Your task to perform on an android device: make emails show in primary in the gmail app Image 0: 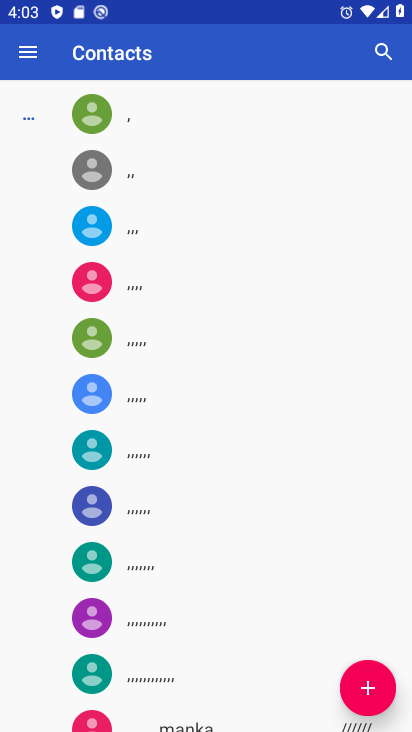
Step 0: press home button
Your task to perform on an android device: make emails show in primary in the gmail app Image 1: 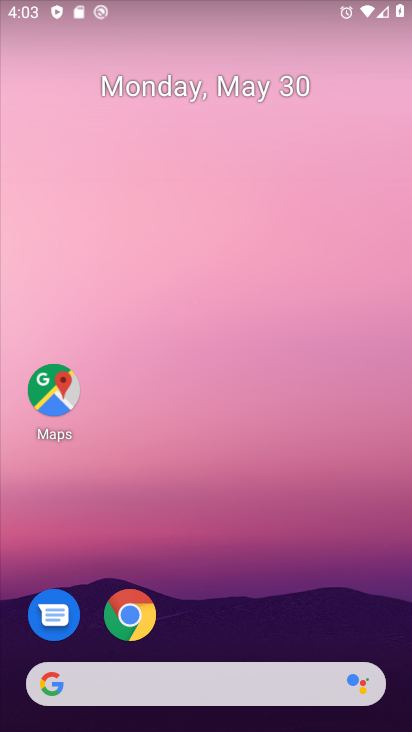
Step 1: drag from (219, 594) to (243, 54)
Your task to perform on an android device: make emails show in primary in the gmail app Image 2: 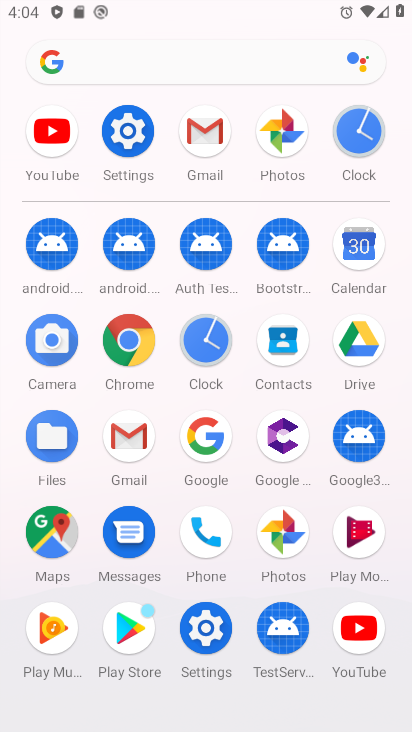
Step 2: click (205, 129)
Your task to perform on an android device: make emails show in primary in the gmail app Image 3: 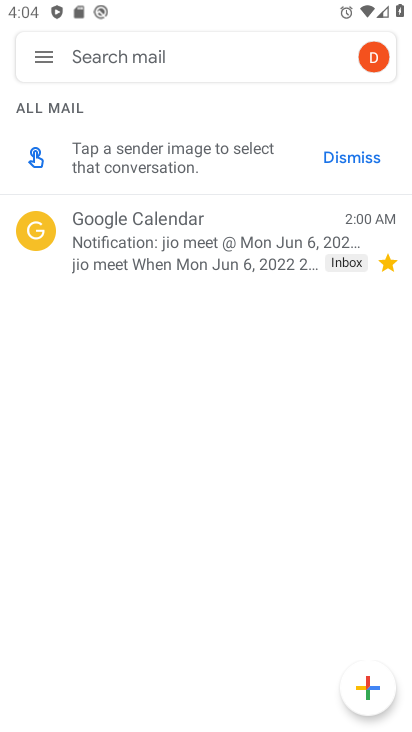
Step 3: click (46, 52)
Your task to perform on an android device: make emails show in primary in the gmail app Image 4: 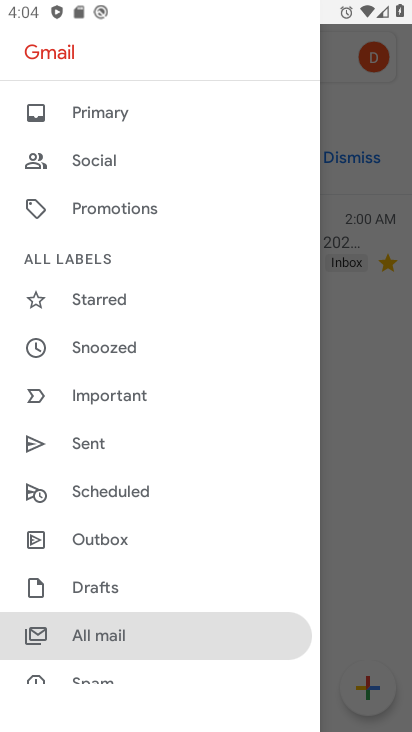
Step 4: drag from (134, 550) to (148, 358)
Your task to perform on an android device: make emails show in primary in the gmail app Image 5: 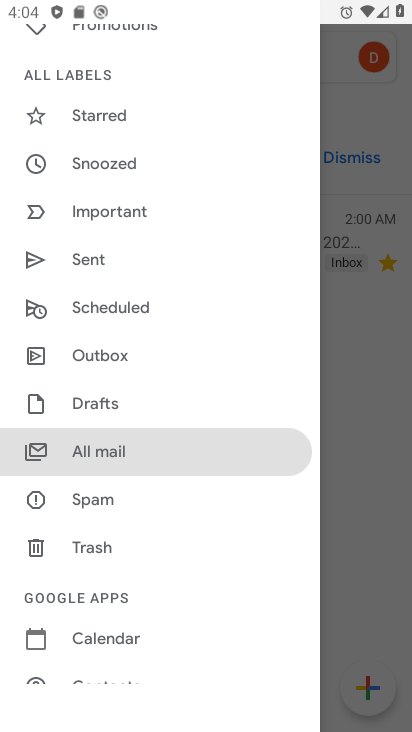
Step 5: drag from (165, 517) to (179, 314)
Your task to perform on an android device: make emails show in primary in the gmail app Image 6: 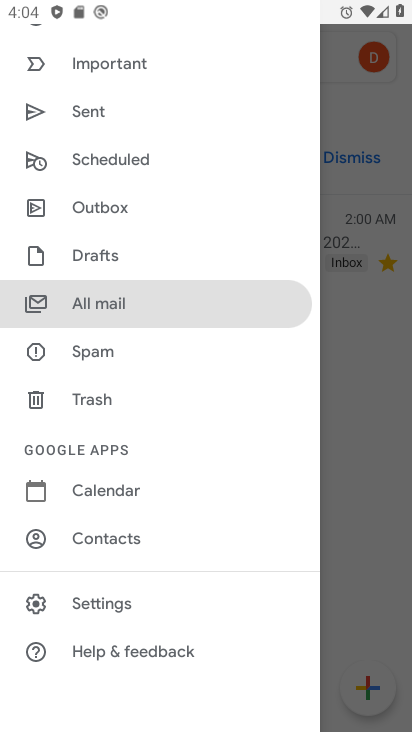
Step 6: click (138, 609)
Your task to perform on an android device: make emails show in primary in the gmail app Image 7: 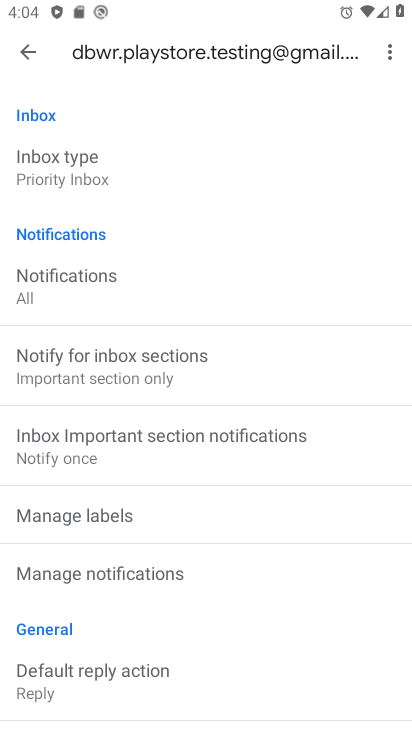
Step 7: click (78, 167)
Your task to perform on an android device: make emails show in primary in the gmail app Image 8: 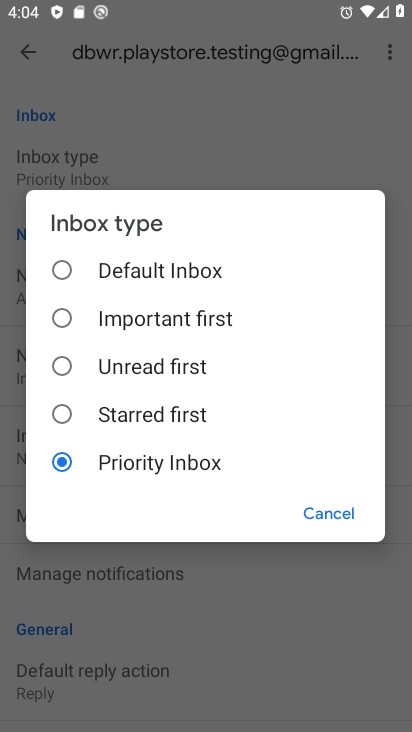
Step 8: click (70, 269)
Your task to perform on an android device: make emails show in primary in the gmail app Image 9: 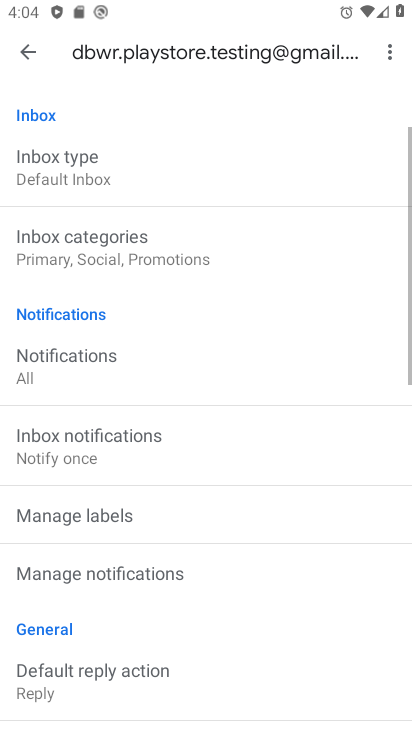
Step 9: click (87, 249)
Your task to perform on an android device: make emails show in primary in the gmail app Image 10: 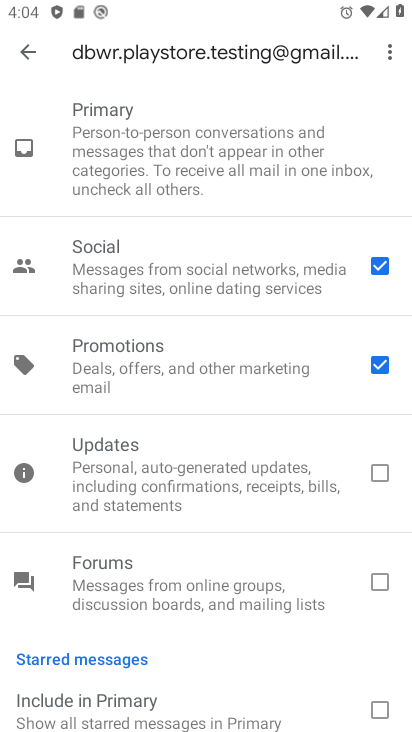
Step 10: click (373, 261)
Your task to perform on an android device: make emails show in primary in the gmail app Image 11: 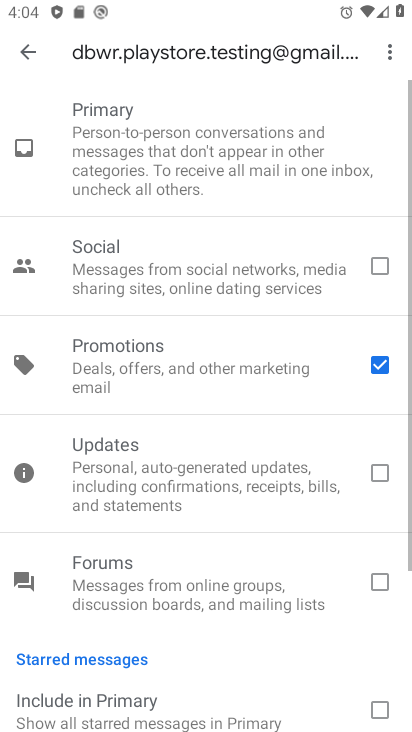
Step 11: click (381, 362)
Your task to perform on an android device: make emails show in primary in the gmail app Image 12: 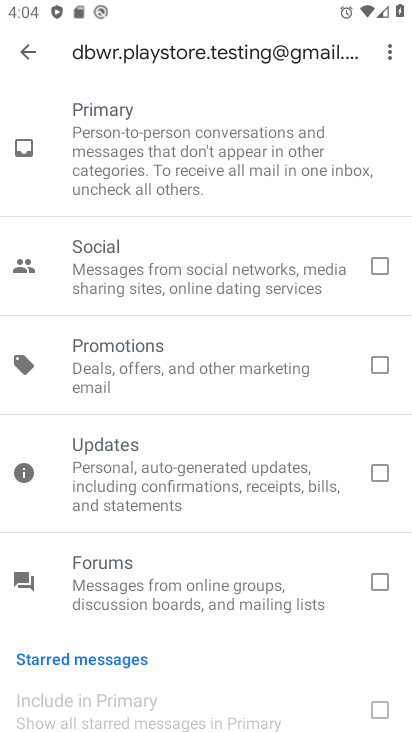
Step 12: task complete